Your task to perform on an android device: Open Google Chrome and open the bookmarks view Image 0: 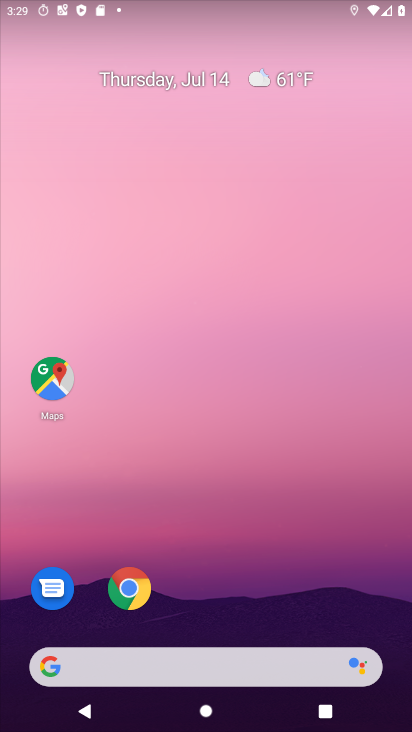
Step 0: click (131, 589)
Your task to perform on an android device: Open Google Chrome and open the bookmarks view Image 1: 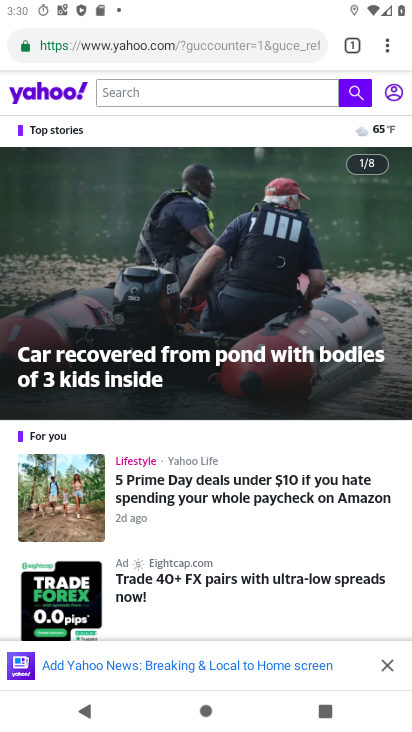
Step 1: click (387, 49)
Your task to perform on an android device: Open Google Chrome and open the bookmarks view Image 2: 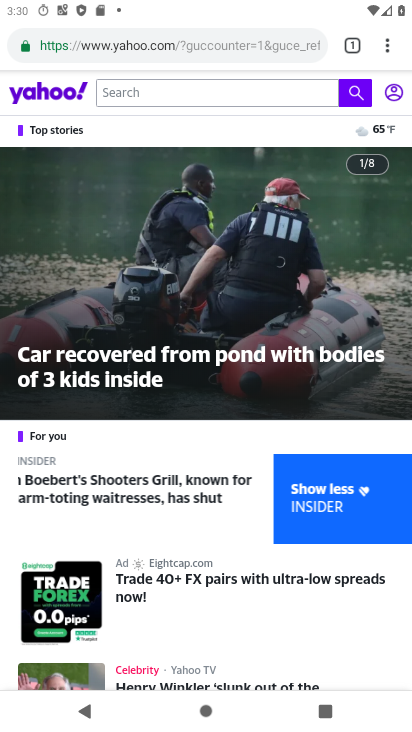
Step 2: click (388, 45)
Your task to perform on an android device: Open Google Chrome and open the bookmarks view Image 3: 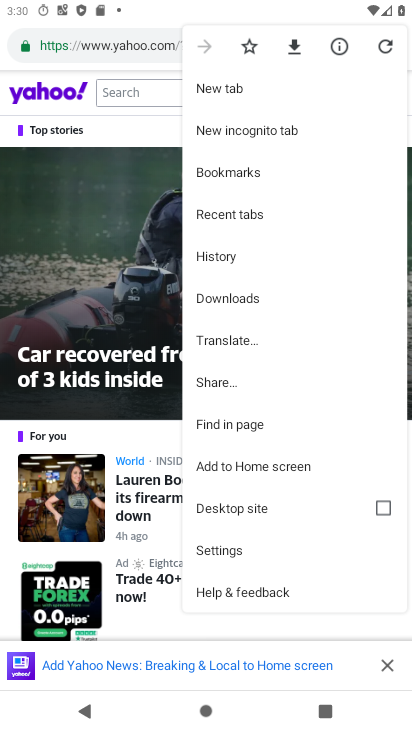
Step 3: click (251, 176)
Your task to perform on an android device: Open Google Chrome and open the bookmarks view Image 4: 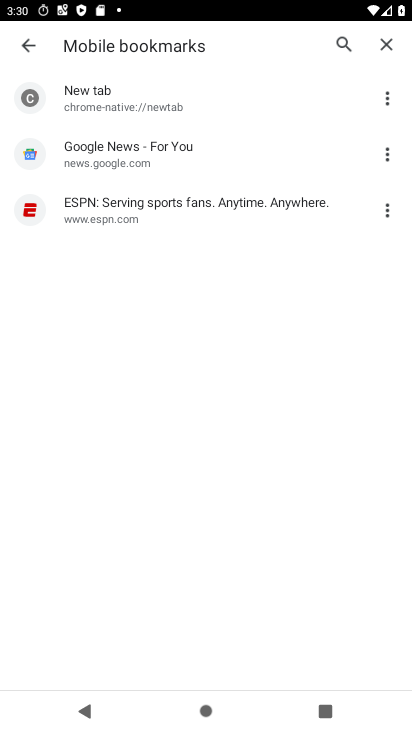
Step 4: task complete